Your task to perform on an android device: Play the last video I watched on Youtube Image 0: 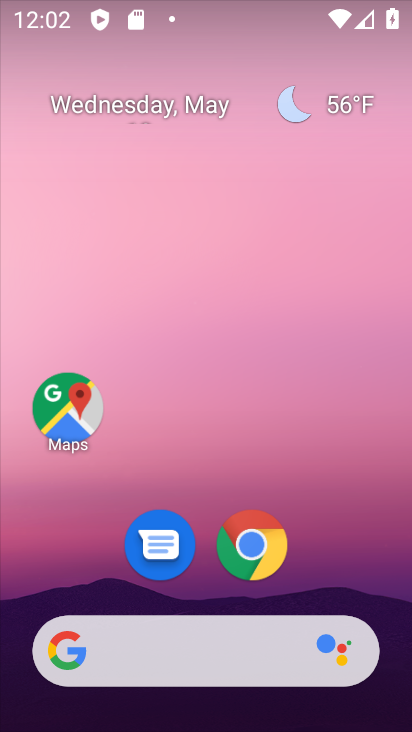
Step 0: drag from (324, 558) to (275, 86)
Your task to perform on an android device: Play the last video I watched on Youtube Image 1: 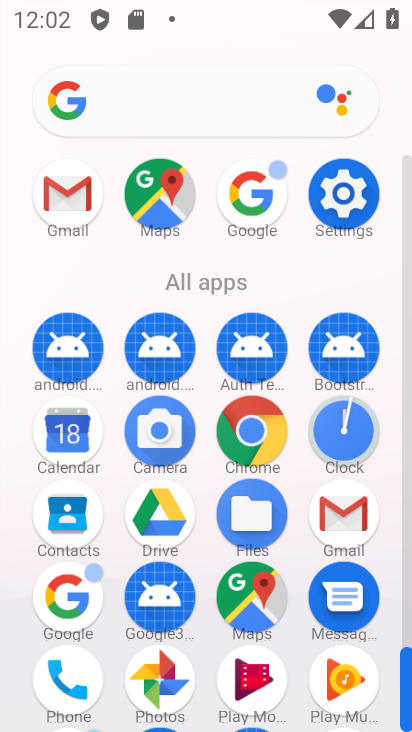
Step 1: drag from (209, 474) to (266, 169)
Your task to perform on an android device: Play the last video I watched on Youtube Image 2: 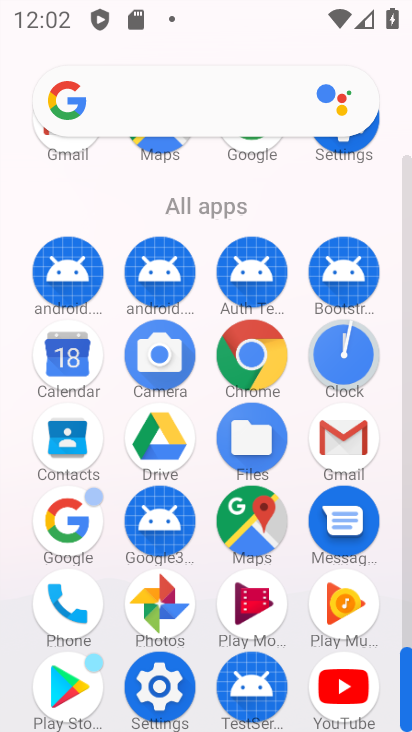
Step 2: click (348, 685)
Your task to perform on an android device: Play the last video I watched on Youtube Image 3: 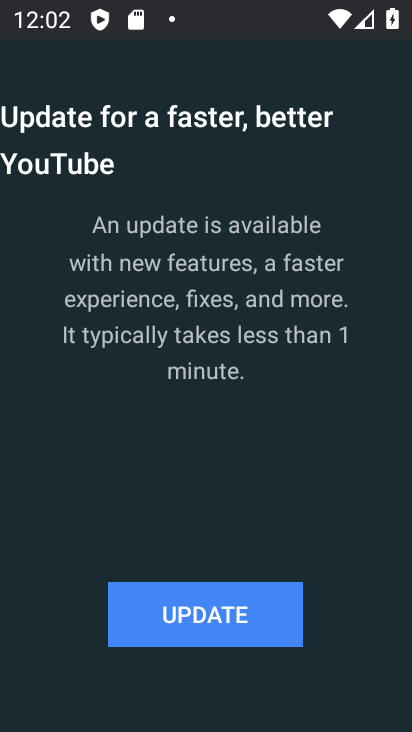
Step 3: click (192, 607)
Your task to perform on an android device: Play the last video I watched on Youtube Image 4: 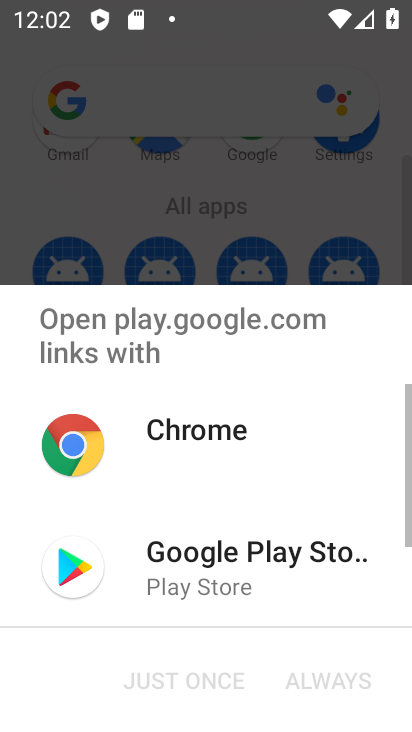
Step 4: click (209, 558)
Your task to perform on an android device: Play the last video I watched on Youtube Image 5: 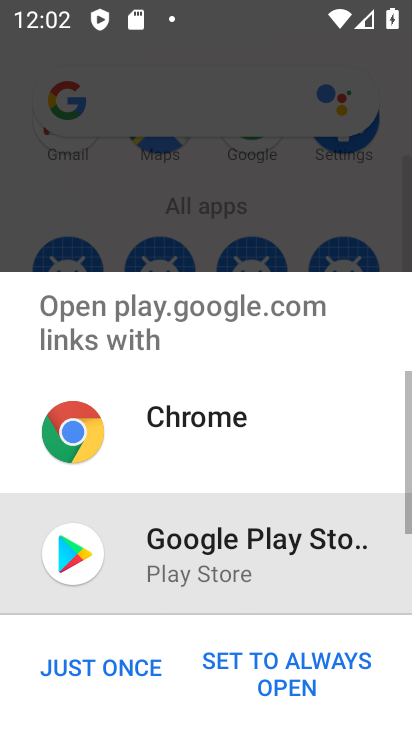
Step 5: click (126, 661)
Your task to perform on an android device: Play the last video I watched on Youtube Image 6: 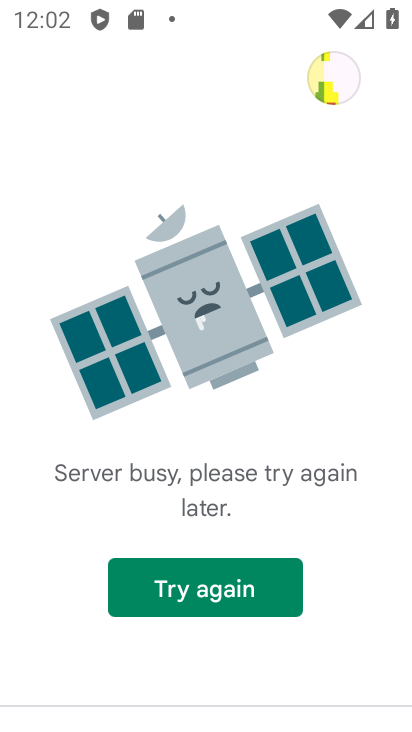
Step 6: click (183, 585)
Your task to perform on an android device: Play the last video I watched on Youtube Image 7: 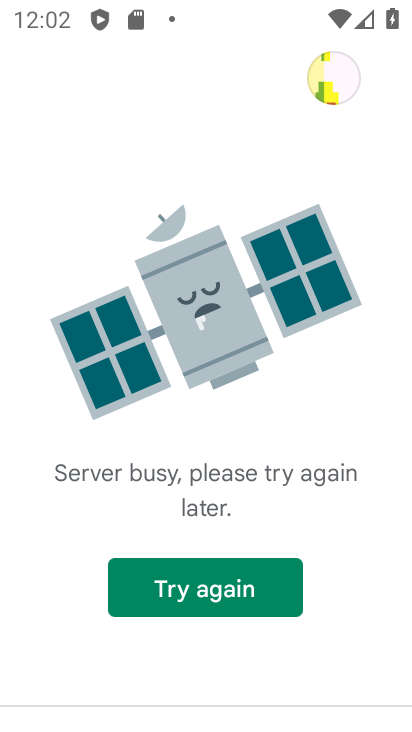
Step 7: task complete